Your task to perform on an android device: Open accessibility settings Image 0: 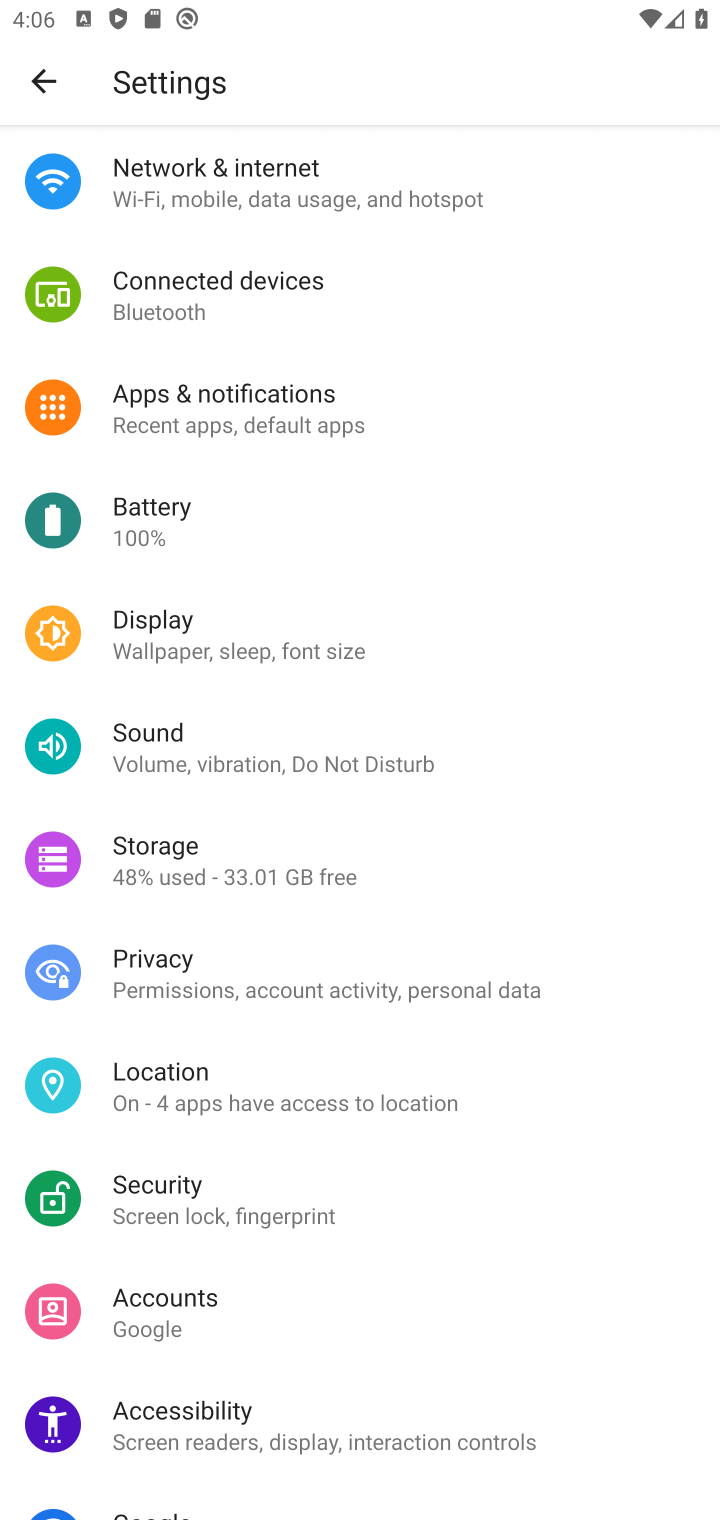
Step 0: click (341, 1401)
Your task to perform on an android device: Open accessibility settings Image 1: 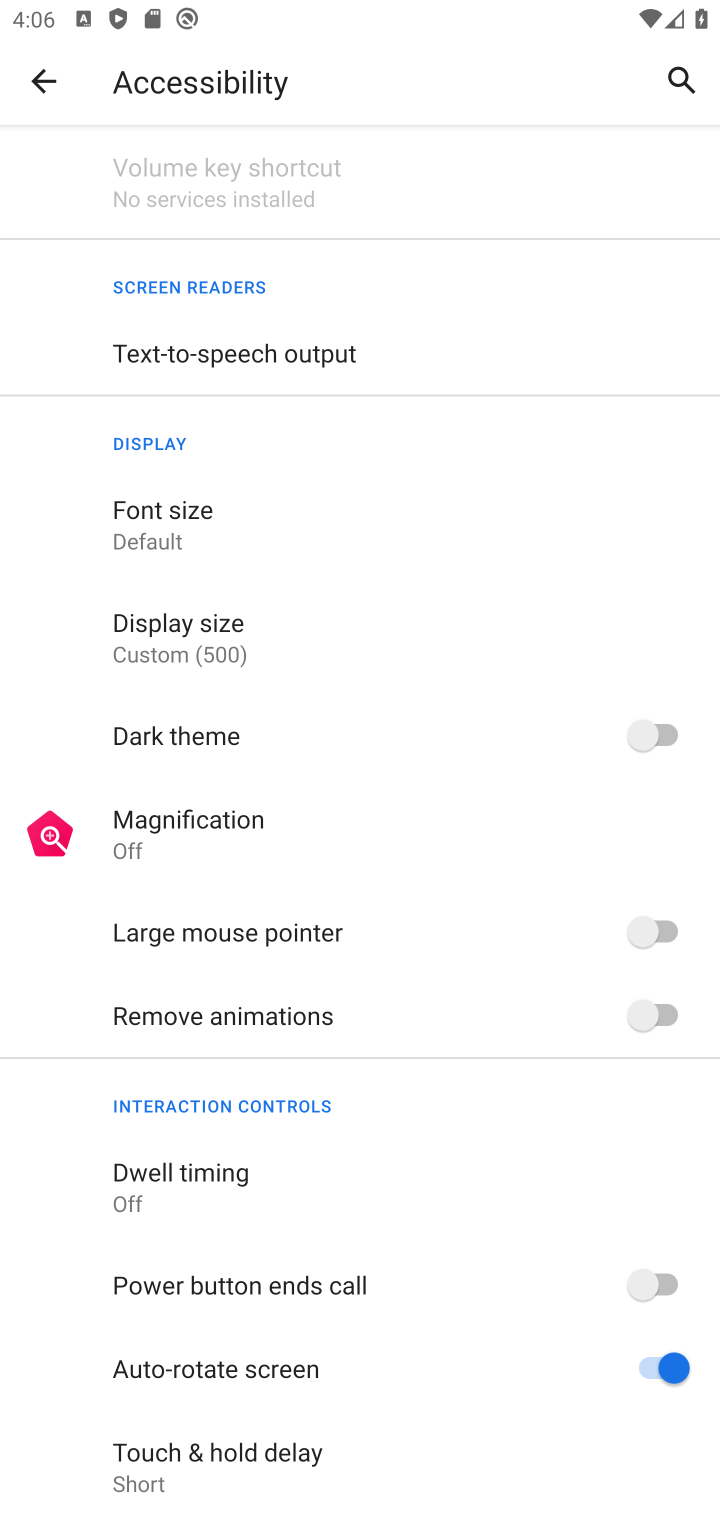
Step 1: task complete